Your task to perform on an android device: open device folders in google photos Image 0: 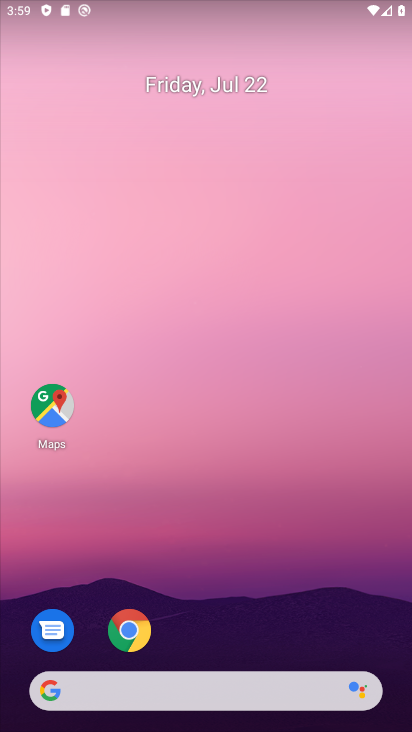
Step 0: drag from (208, 543) to (248, 60)
Your task to perform on an android device: open device folders in google photos Image 1: 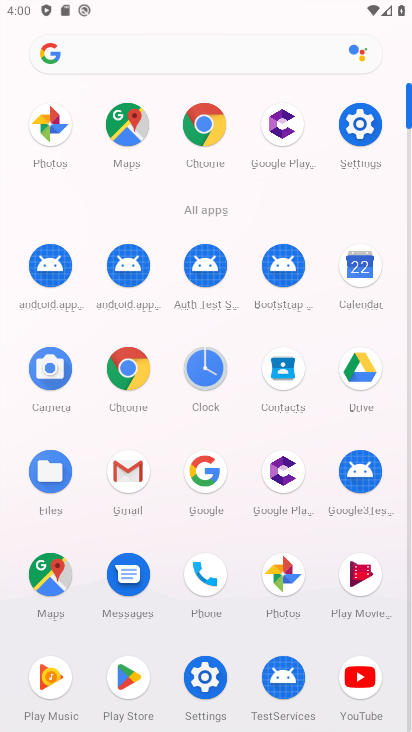
Step 1: click (290, 564)
Your task to perform on an android device: open device folders in google photos Image 2: 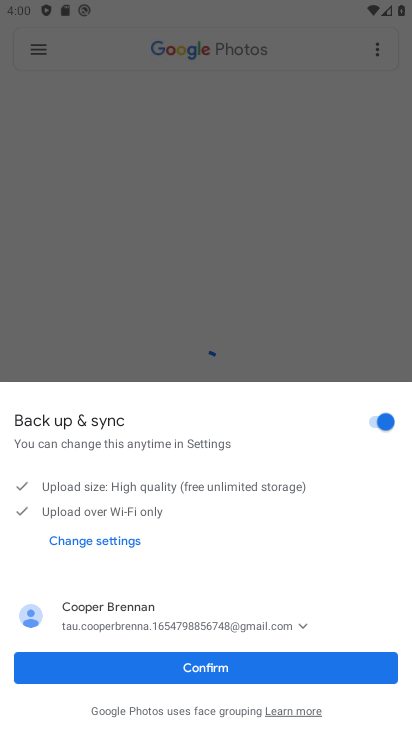
Step 2: click (191, 658)
Your task to perform on an android device: open device folders in google photos Image 3: 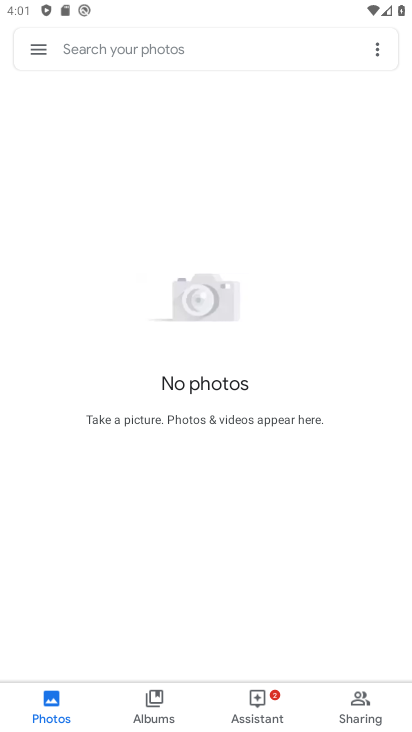
Step 3: click (40, 50)
Your task to perform on an android device: open device folders in google photos Image 4: 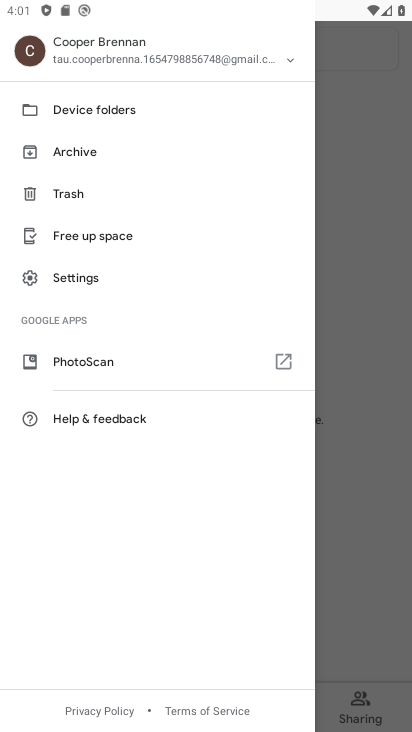
Step 4: click (81, 104)
Your task to perform on an android device: open device folders in google photos Image 5: 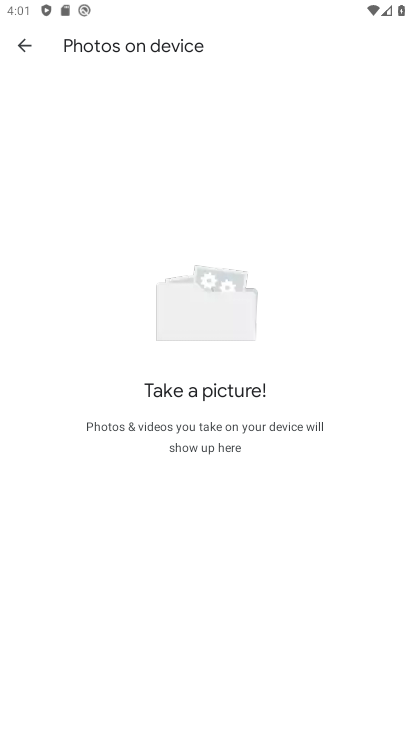
Step 5: task complete